Your task to perform on an android device: move an email to a new category in the gmail app Image 0: 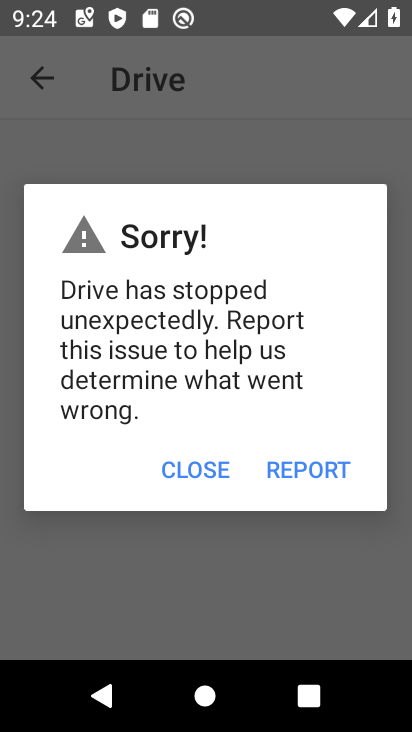
Step 0: press home button
Your task to perform on an android device: move an email to a new category in the gmail app Image 1: 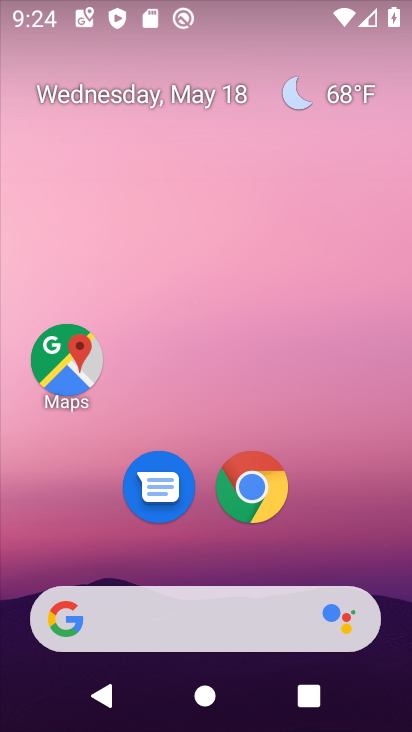
Step 1: drag from (332, 539) to (345, 57)
Your task to perform on an android device: move an email to a new category in the gmail app Image 2: 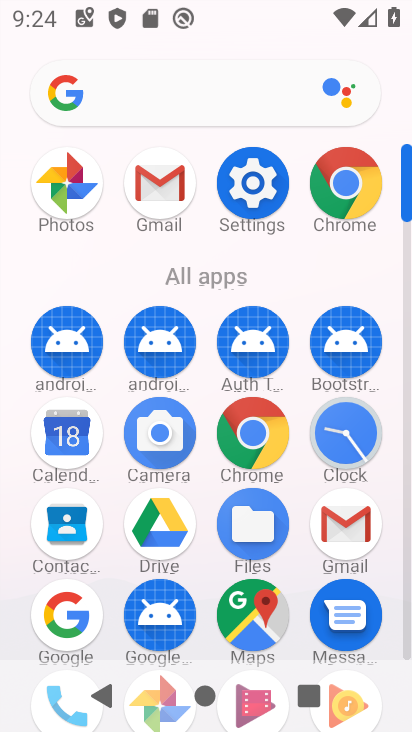
Step 2: click (334, 539)
Your task to perform on an android device: move an email to a new category in the gmail app Image 3: 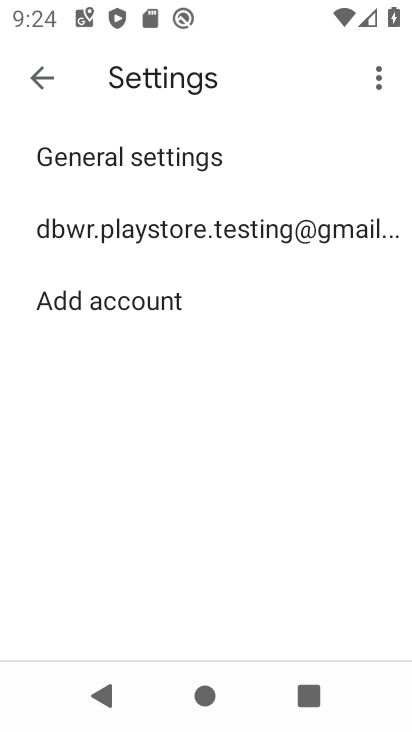
Step 3: click (228, 222)
Your task to perform on an android device: move an email to a new category in the gmail app Image 4: 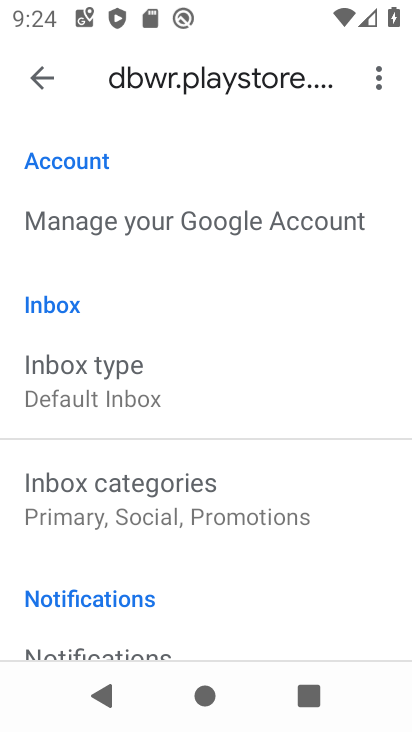
Step 4: click (48, 94)
Your task to perform on an android device: move an email to a new category in the gmail app Image 5: 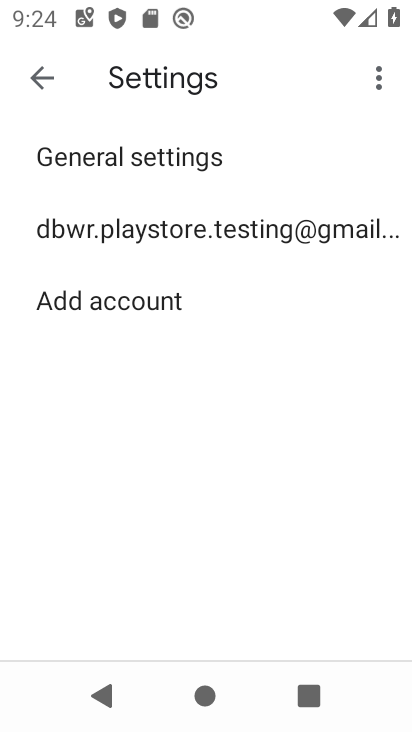
Step 5: click (48, 94)
Your task to perform on an android device: move an email to a new category in the gmail app Image 6: 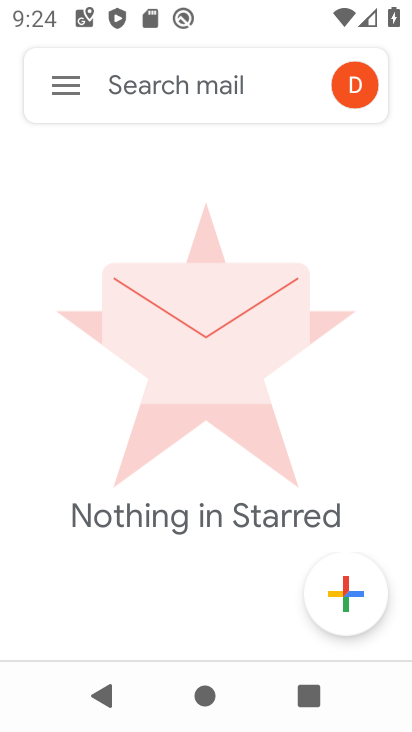
Step 6: click (48, 94)
Your task to perform on an android device: move an email to a new category in the gmail app Image 7: 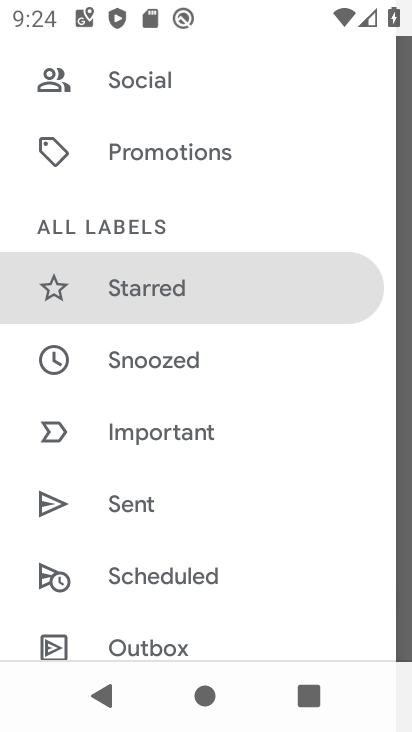
Step 7: drag from (254, 581) to (252, 256)
Your task to perform on an android device: move an email to a new category in the gmail app Image 8: 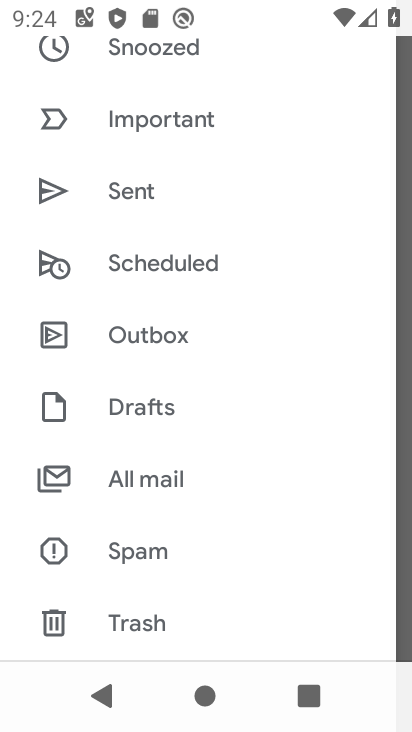
Step 8: drag from (220, 596) to (236, 363)
Your task to perform on an android device: move an email to a new category in the gmail app Image 9: 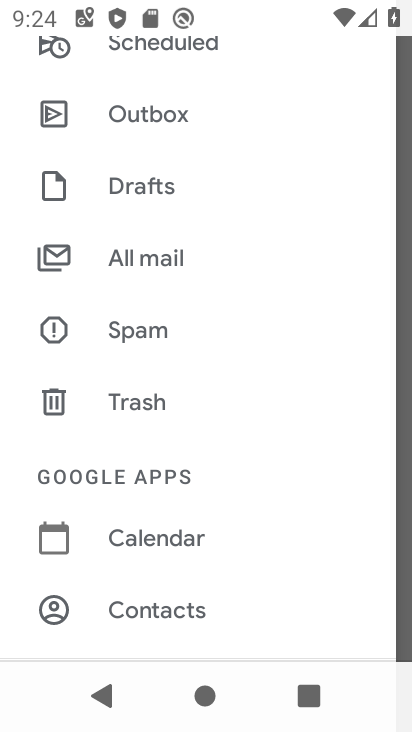
Step 9: drag from (345, 627) to (345, 352)
Your task to perform on an android device: move an email to a new category in the gmail app Image 10: 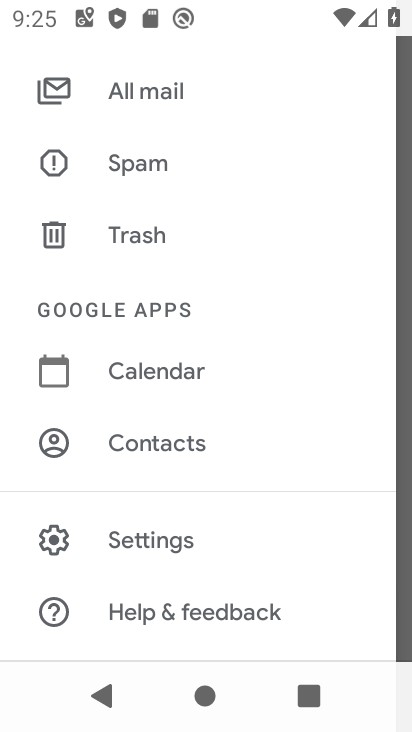
Step 10: click (186, 91)
Your task to perform on an android device: move an email to a new category in the gmail app Image 11: 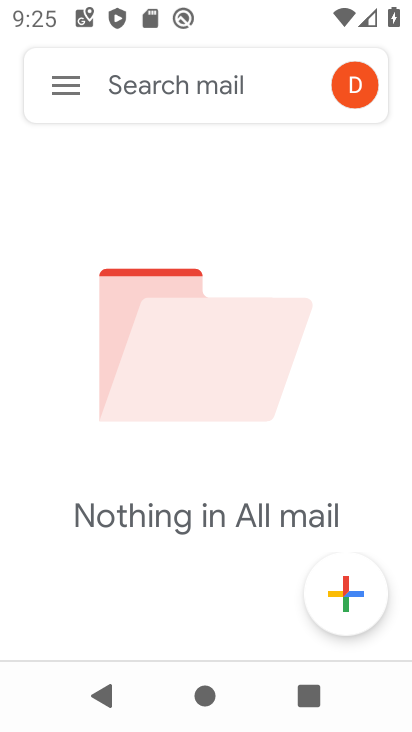
Step 11: task complete